Your task to perform on an android device: Open Chrome and go to the settings page Image 0: 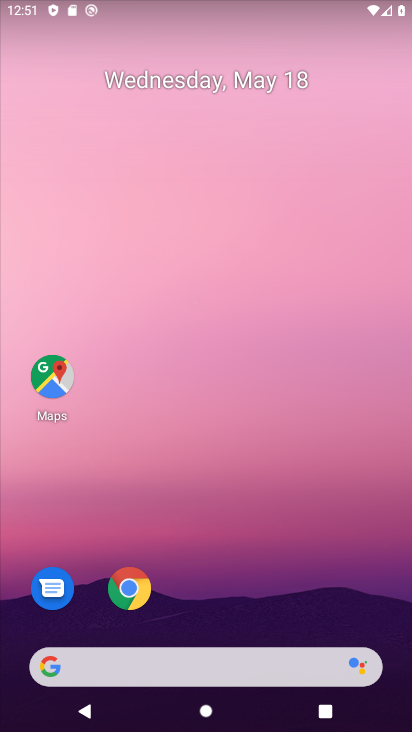
Step 0: drag from (360, 611) to (348, 153)
Your task to perform on an android device: Open Chrome and go to the settings page Image 1: 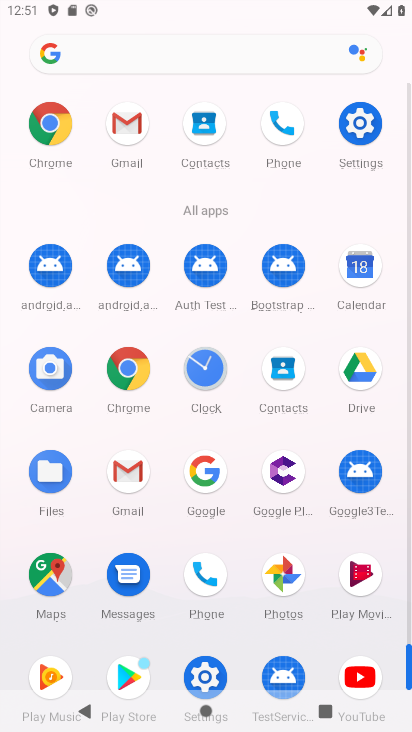
Step 1: click (135, 368)
Your task to perform on an android device: Open Chrome and go to the settings page Image 2: 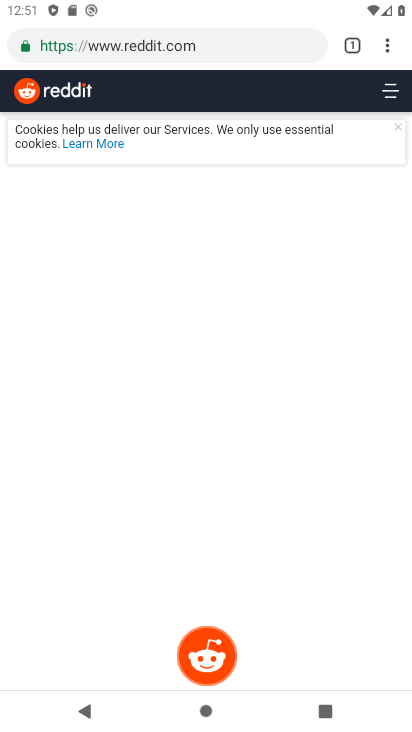
Step 2: click (387, 48)
Your task to perform on an android device: Open Chrome and go to the settings page Image 3: 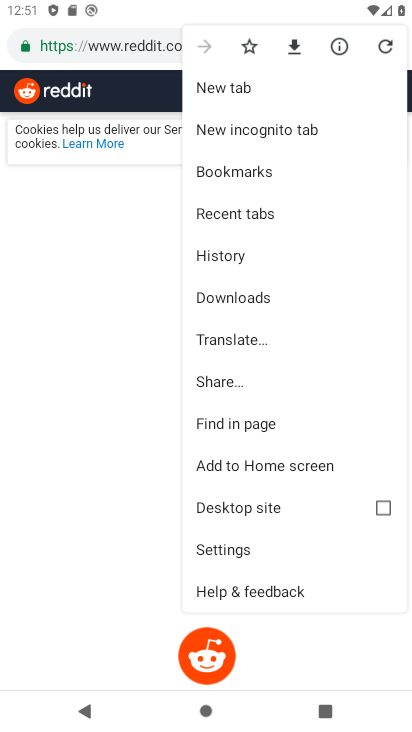
Step 3: click (240, 550)
Your task to perform on an android device: Open Chrome and go to the settings page Image 4: 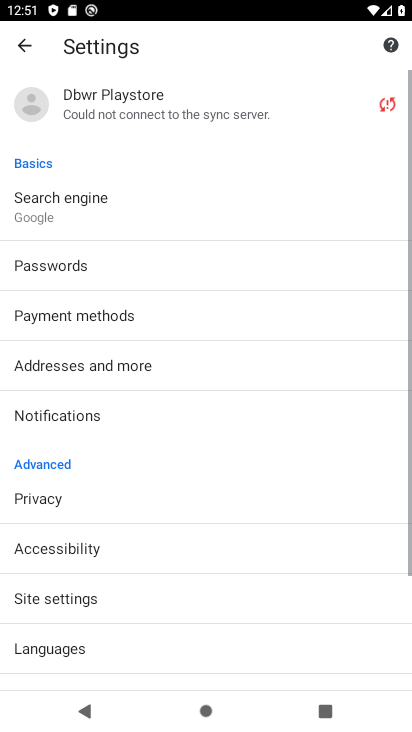
Step 4: task complete